Your task to perform on an android device: turn off location Image 0: 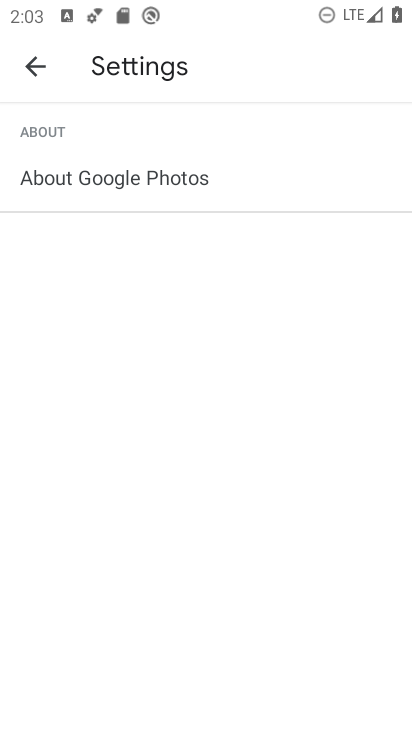
Step 0: press home button
Your task to perform on an android device: turn off location Image 1: 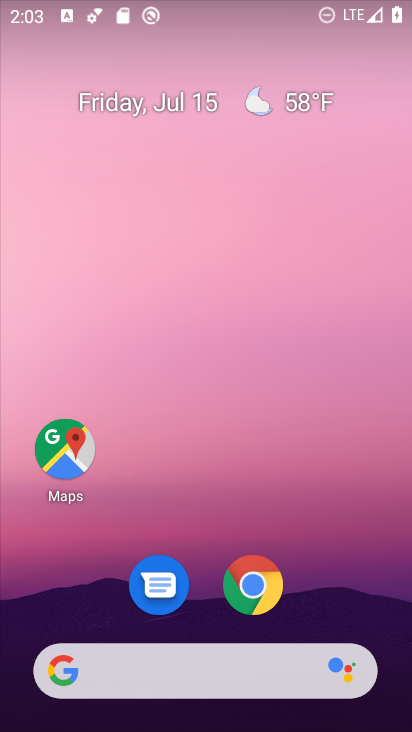
Step 1: drag from (346, 577) to (364, 44)
Your task to perform on an android device: turn off location Image 2: 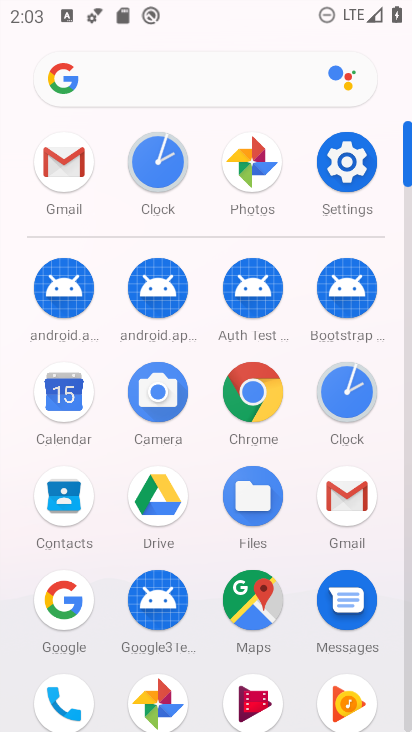
Step 2: click (350, 164)
Your task to perform on an android device: turn off location Image 3: 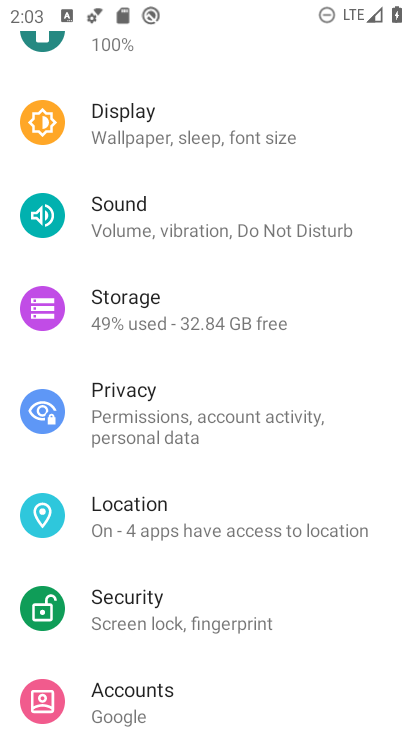
Step 3: click (210, 515)
Your task to perform on an android device: turn off location Image 4: 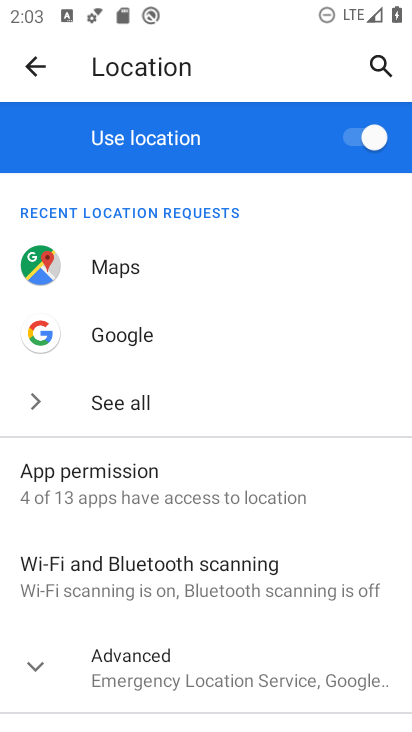
Step 4: click (372, 140)
Your task to perform on an android device: turn off location Image 5: 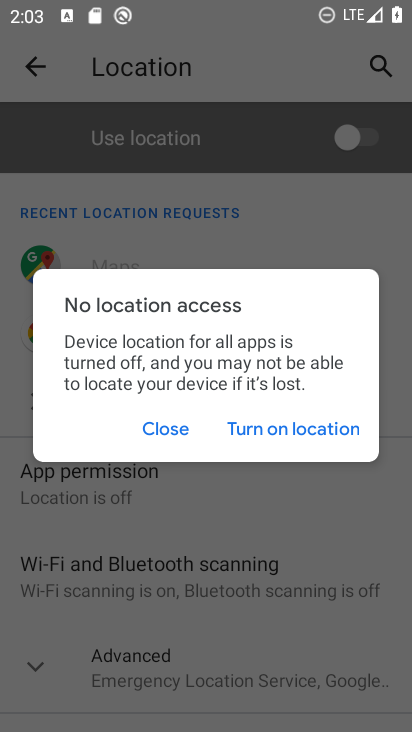
Step 5: click (182, 431)
Your task to perform on an android device: turn off location Image 6: 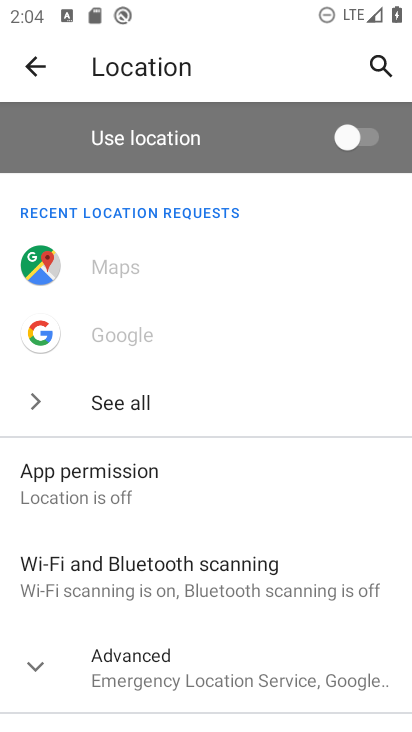
Step 6: task complete